Your task to perform on an android device: Go to calendar. Show me events next week Image 0: 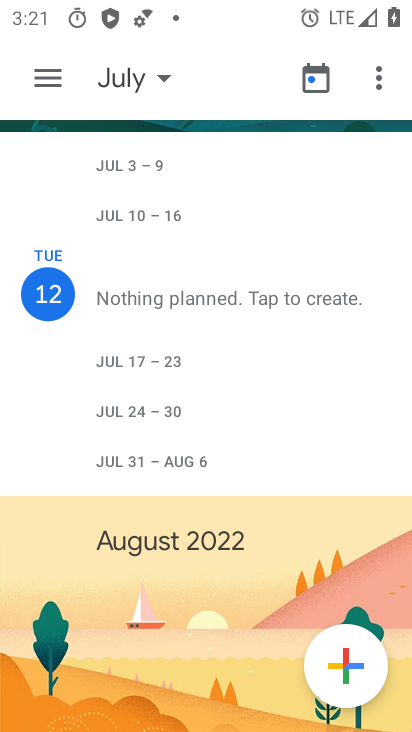
Step 0: press home button
Your task to perform on an android device: Go to calendar. Show me events next week Image 1: 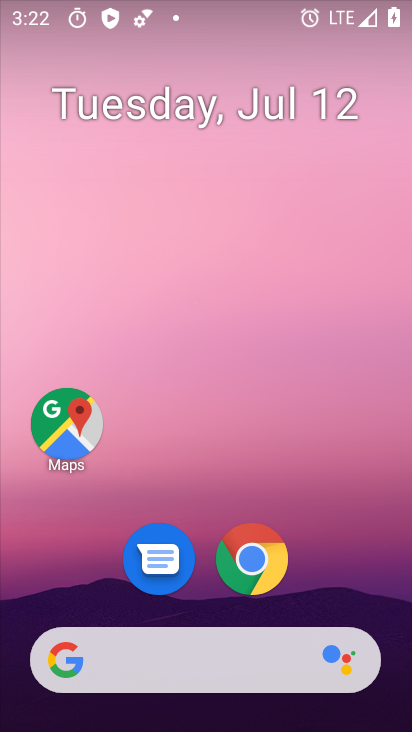
Step 1: drag from (378, 593) to (386, 233)
Your task to perform on an android device: Go to calendar. Show me events next week Image 2: 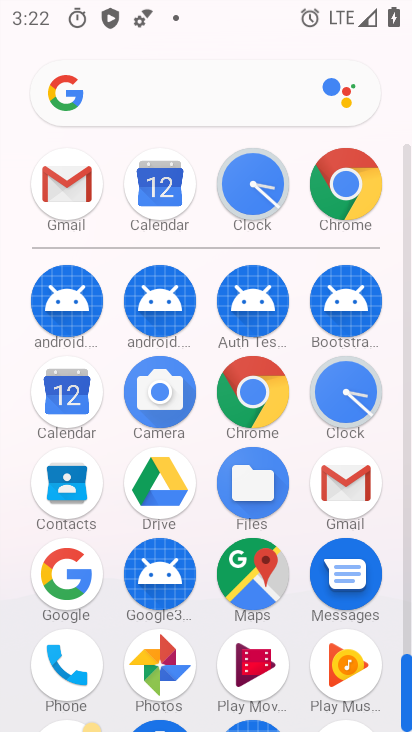
Step 2: click (78, 408)
Your task to perform on an android device: Go to calendar. Show me events next week Image 3: 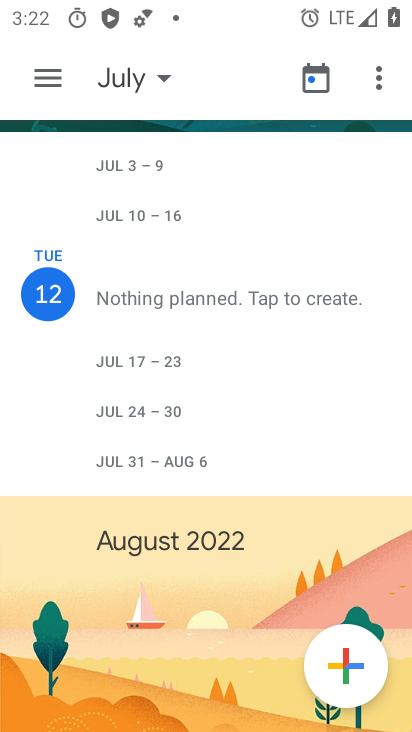
Step 3: click (159, 79)
Your task to perform on an android device: Go to calendar. Show me events next week Image 4: 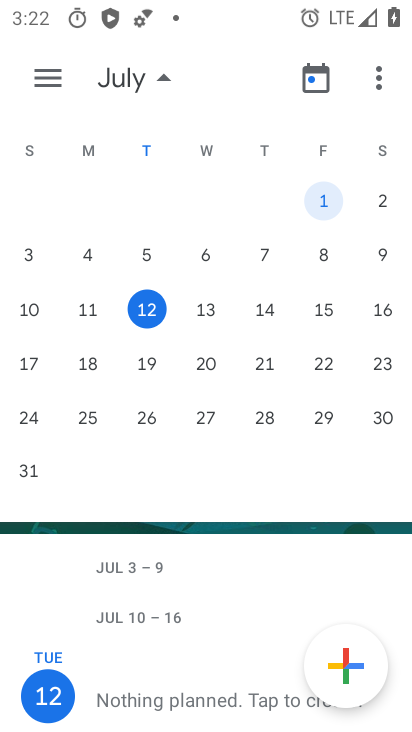
Step 4: click (157, 366)
Your task to perform on an android device: Go to calendar. Show me events next week Image 5: 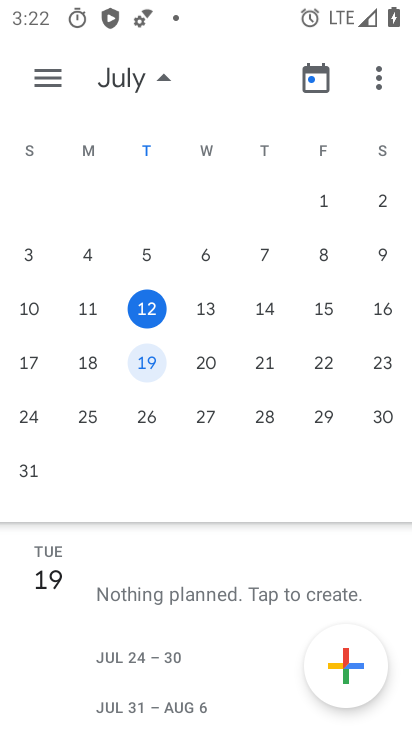
Step 5: task complete